Your task to perform on an android device: Open settings Image 0: 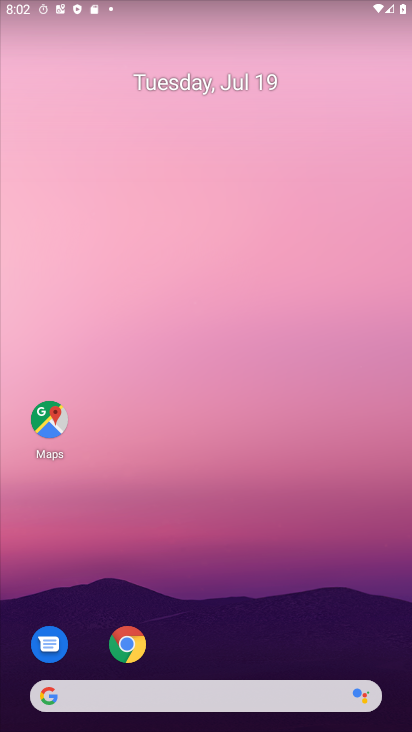
Step 0: drag from (20, 691) to (247, 40)
Your task to perform on an android device: Open settings Image 1: 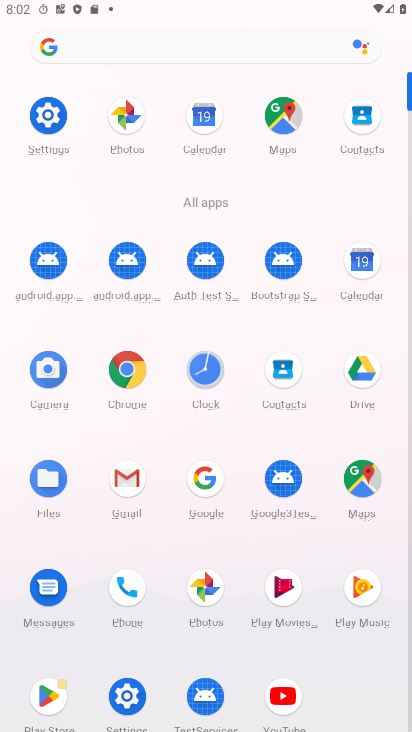
Step 1: click (138, 684)
Your task to perform on an android device: Open settings Image 2: 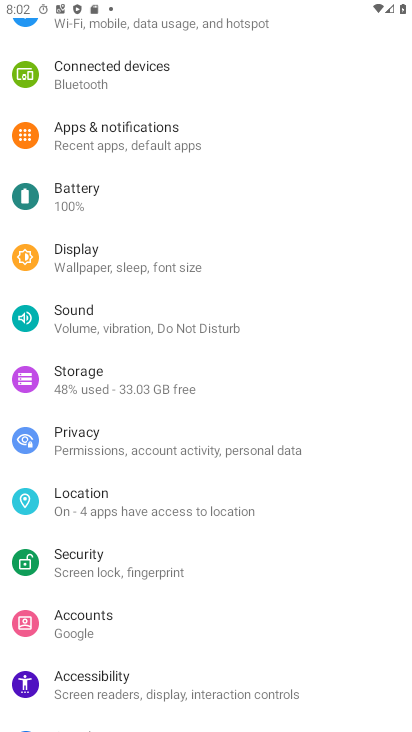
Step 2: task complete